Your task to perform on an android device: How do I get to the nearest Burger King? Image 0: 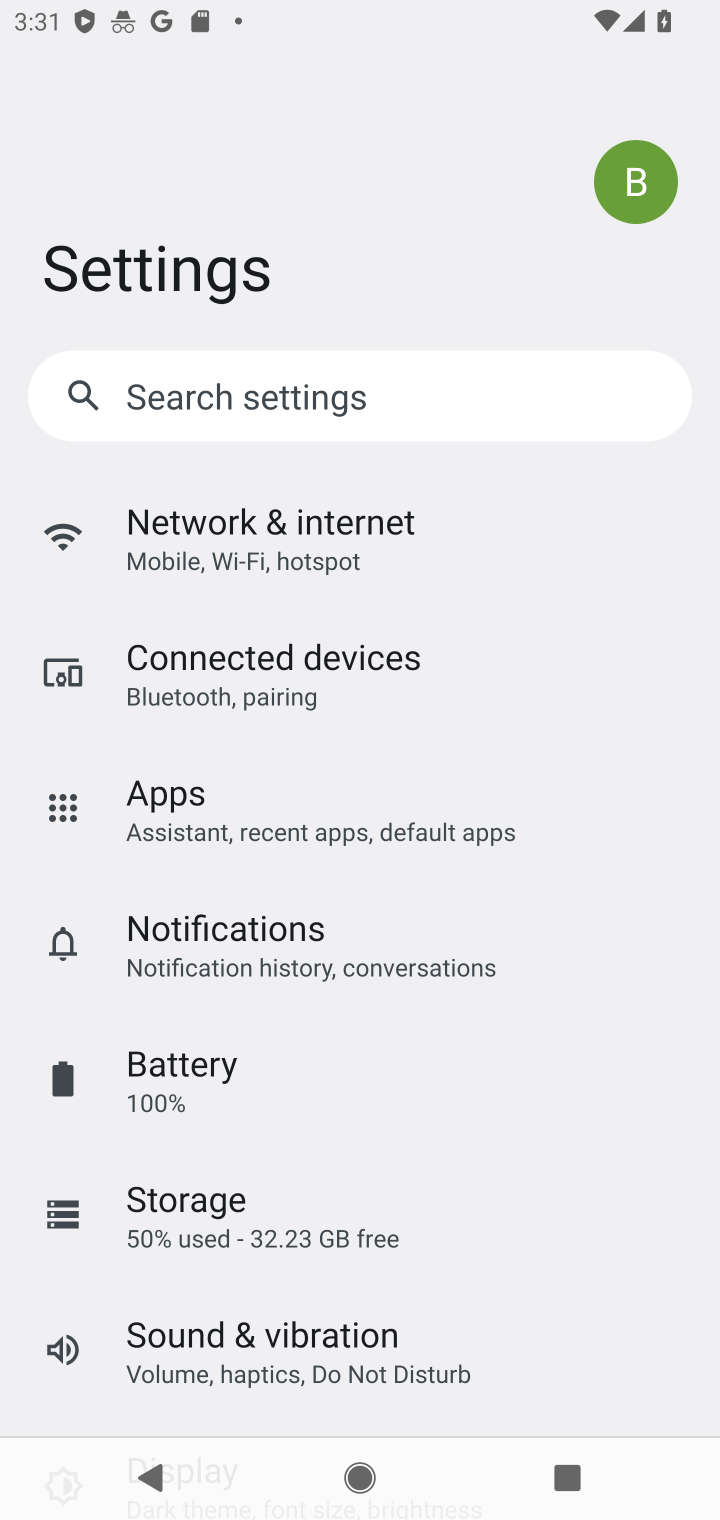
Step 0: press home button
Your task to perform on an android device: How do I get to the nearest Burger King? Image 1: 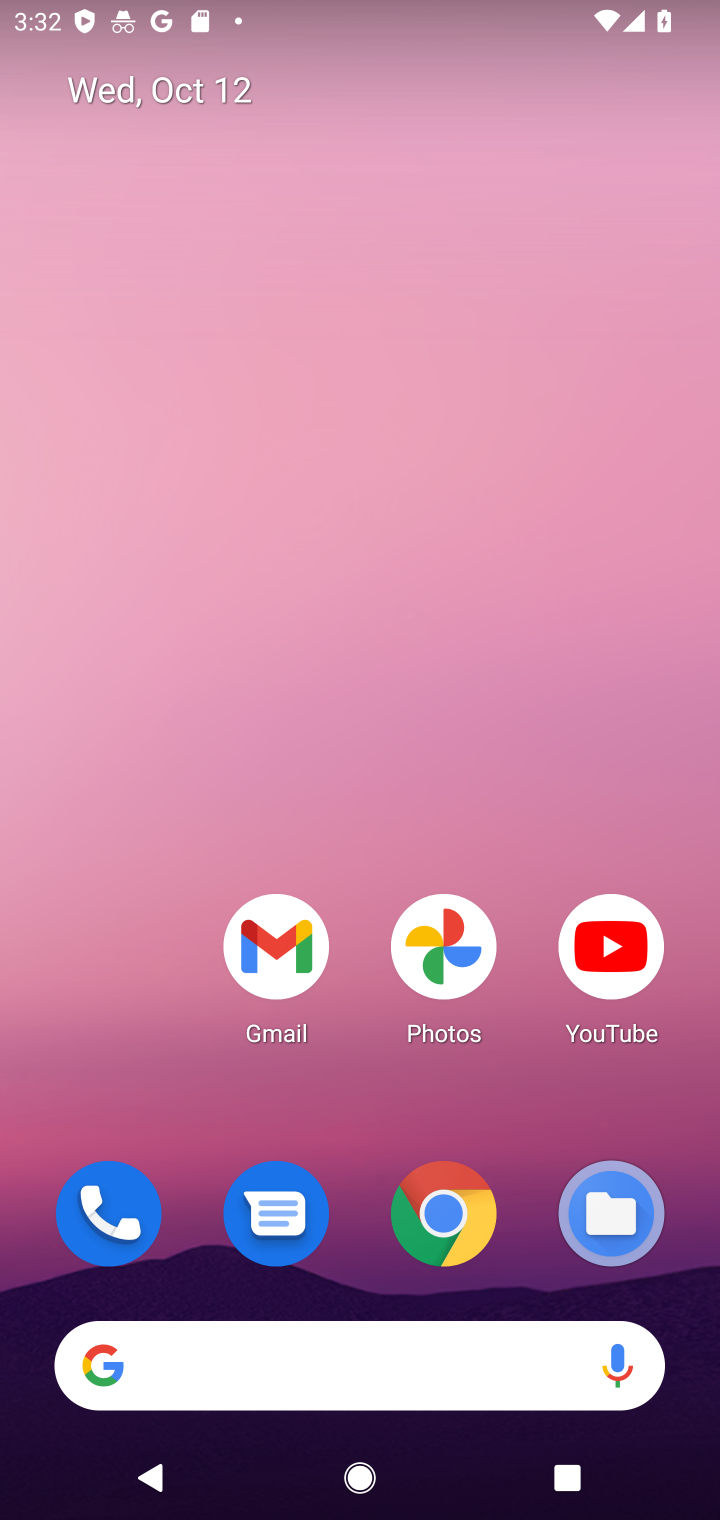
Step 1: click (278, 1322)
Your task to perform on an android device: How do I get to the nearest Burger King? Image 2: 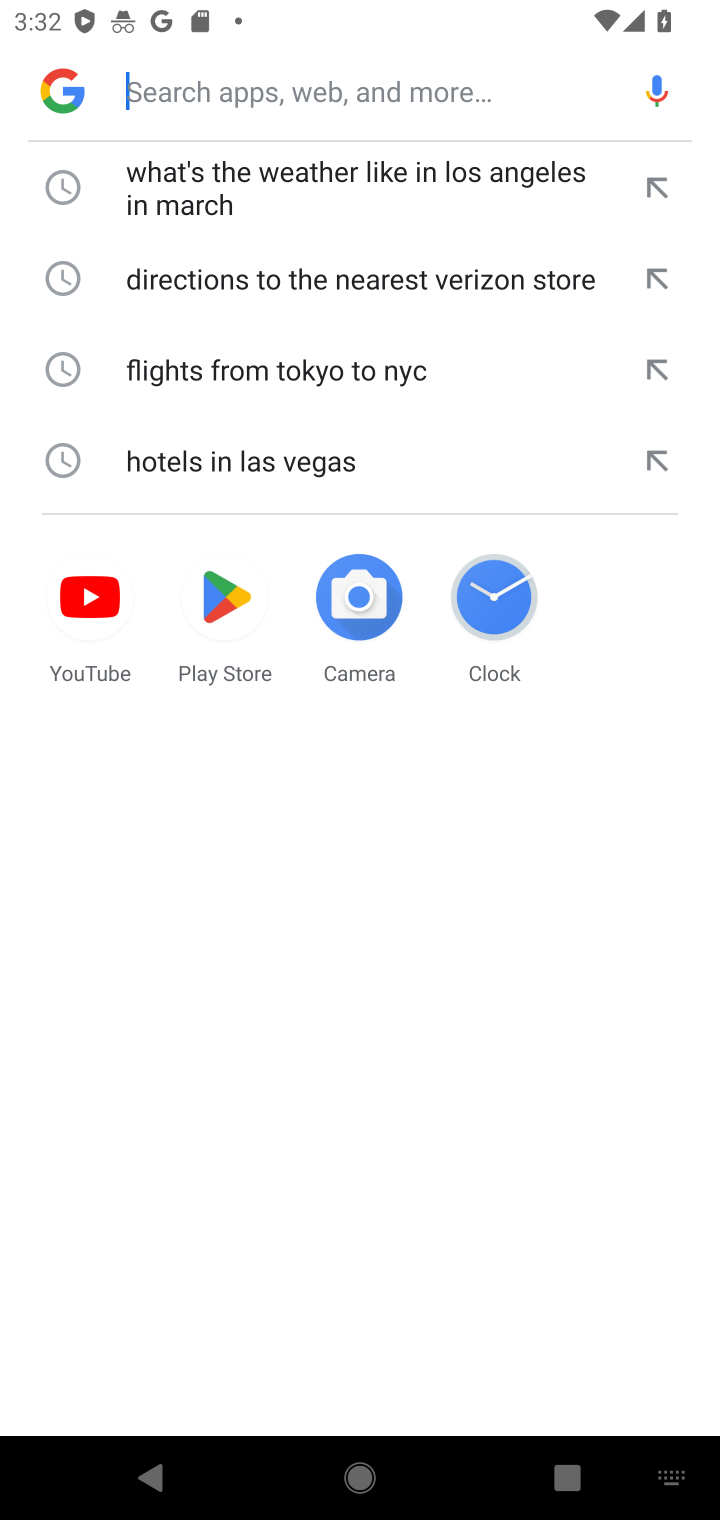
Step 2: click (188, 89)
Your task to perform on an android device: How do I get to the nearest Burger King? Image 3: 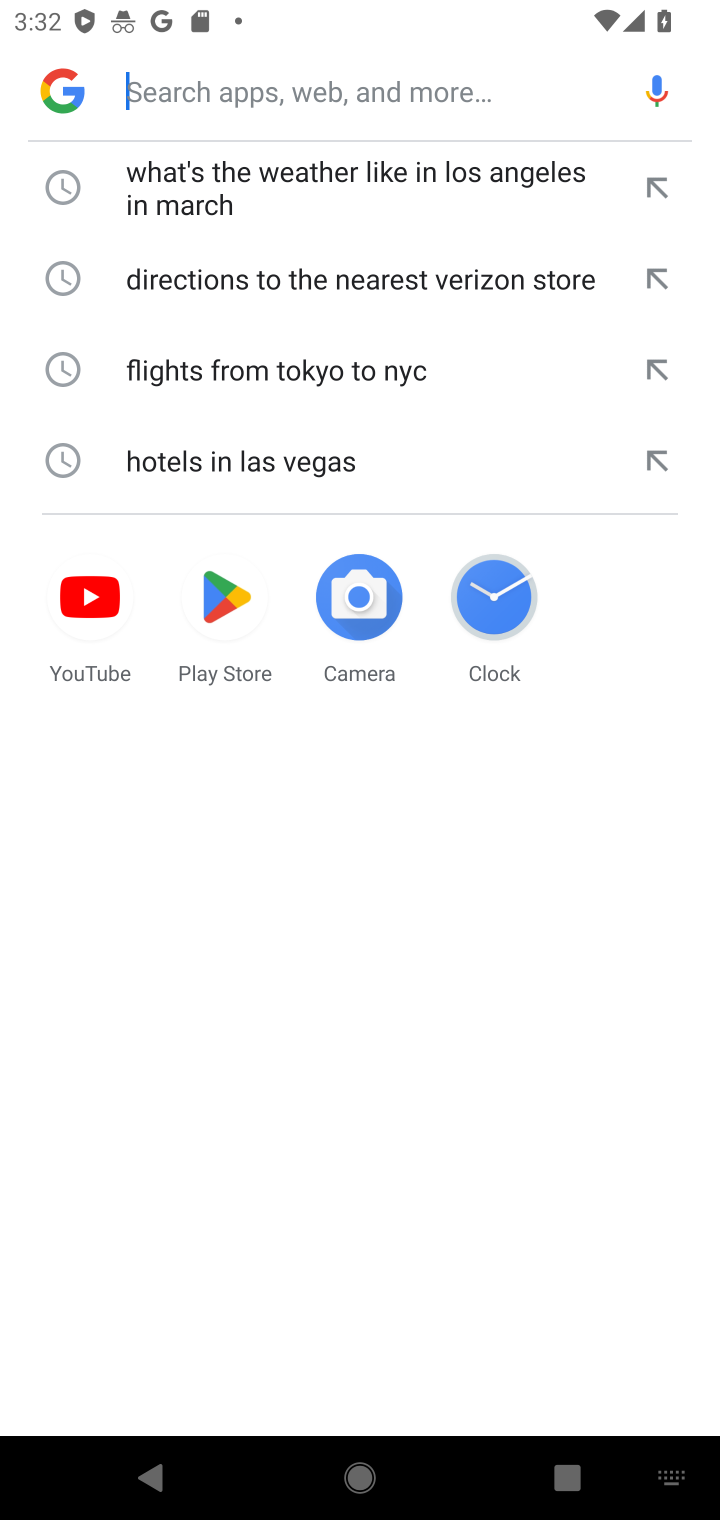
Step 3: type "How do I get to the nearest Burger King?"
Your task to perform on an android device: How do I get to the nearest Burger King? Image 4: 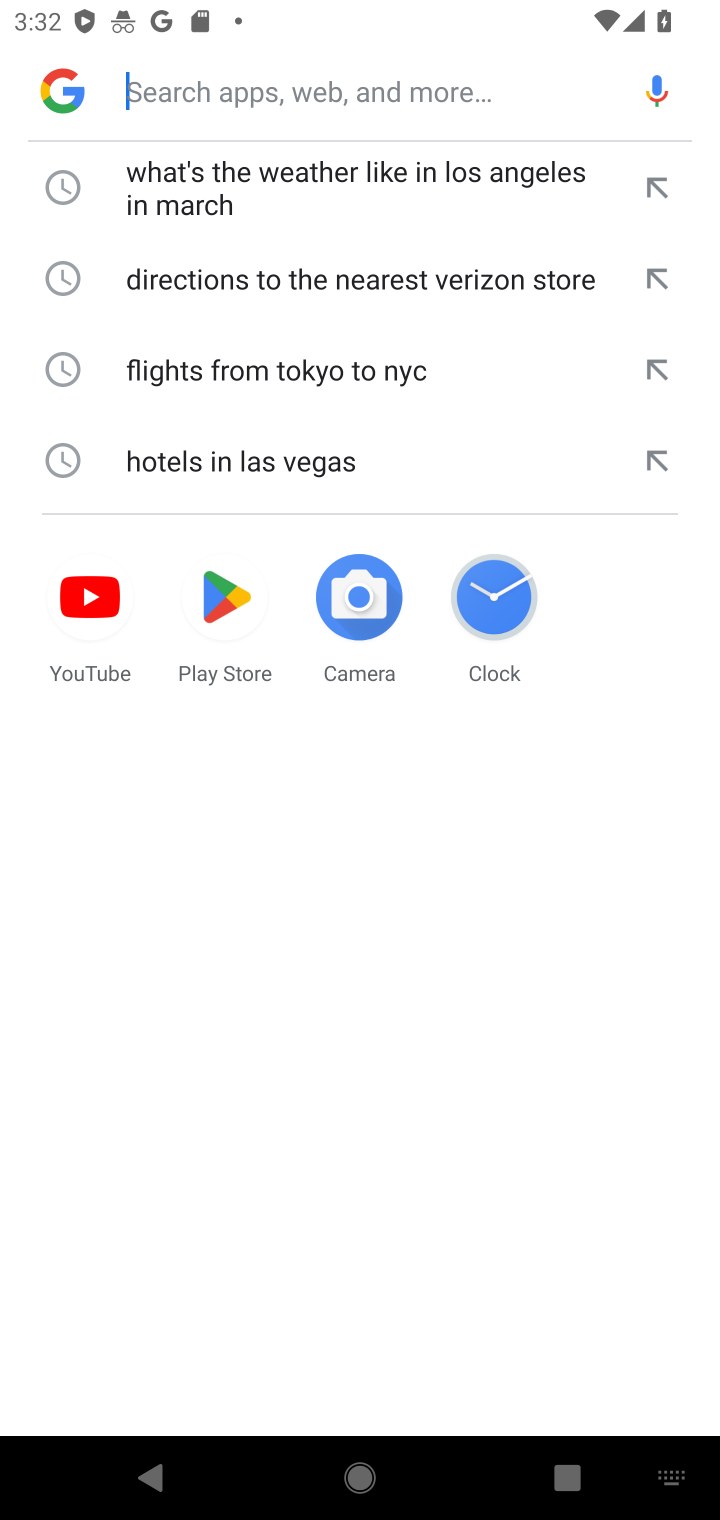
Step 4: click (334, 1027)
Your task to perform on an android device: How do I get to the nearest Burger King? Image 5: 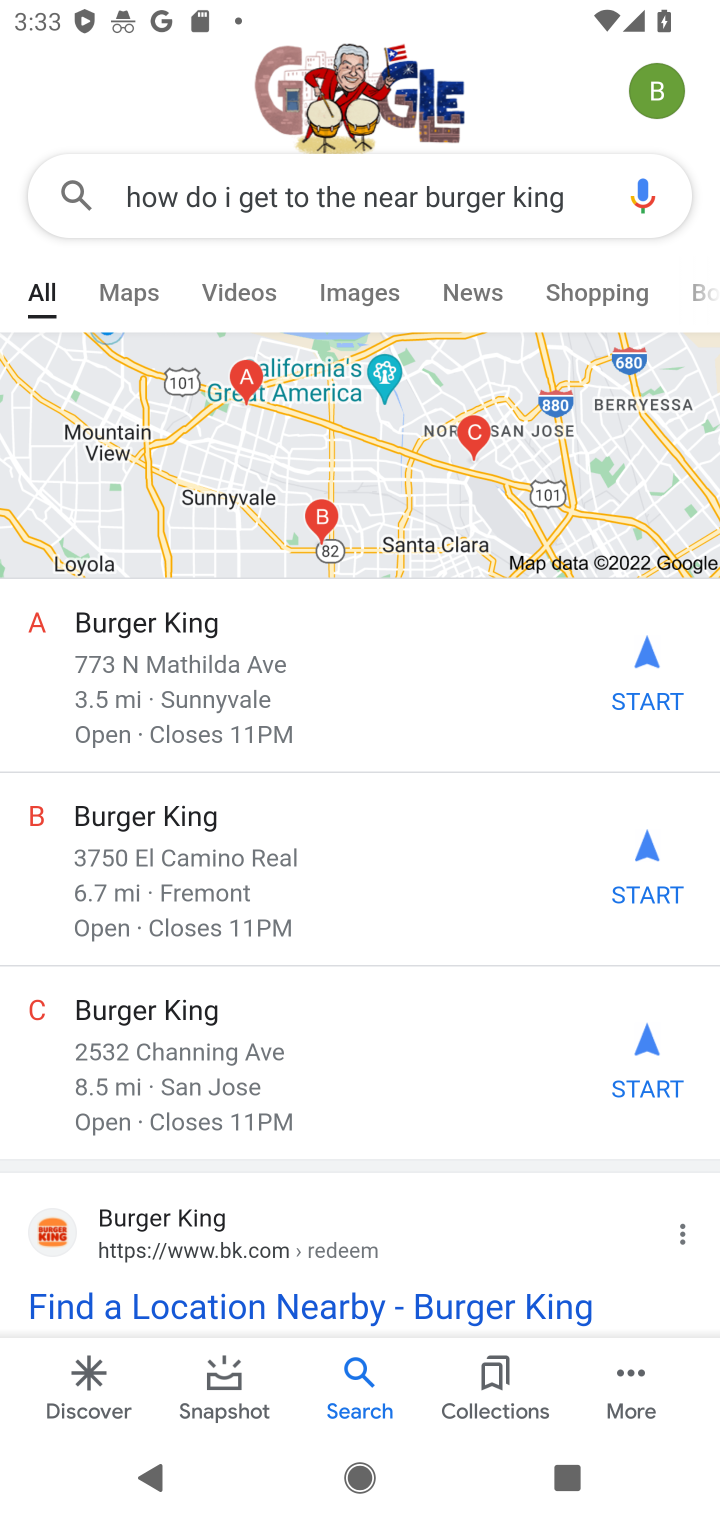
Step 5: task complete